Your task to perform on an android device: Open my contact list Image 0: 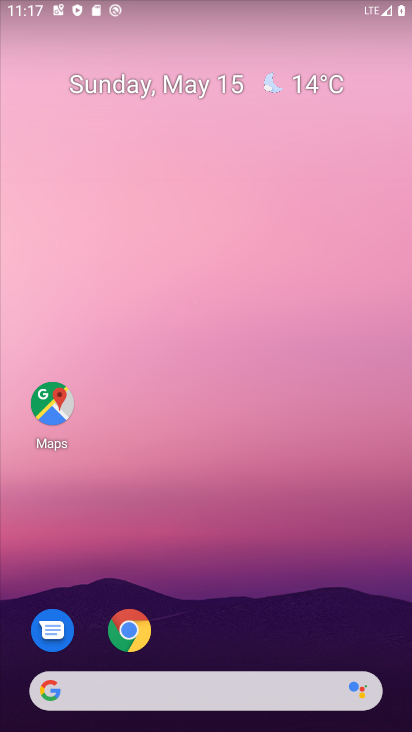
Step 0: drag from (35, 595) to (226, 222)
Your task to perform on an android device: Open my contact list Image 1: 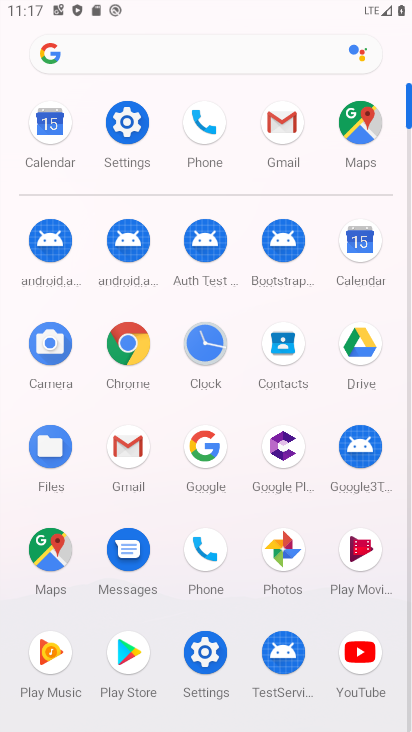
Step 1: click (194, 128)
Your task to perform on an android device: Open my contact list Image 2: 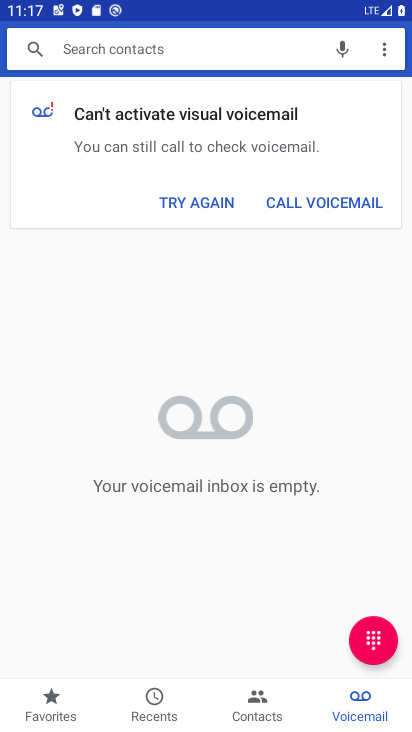
Step 2: click (268, 694)
Your task to perform on an android device: Open my contact list Image 3: 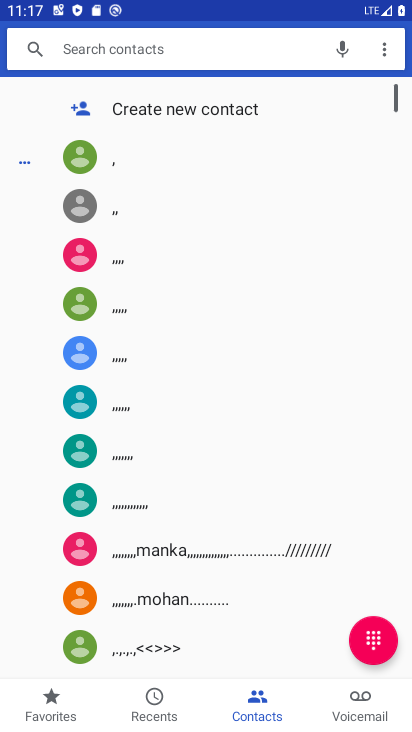
Step 3: task complete